Your task to perform on an android device: Go to Yahoo.com Image 0: 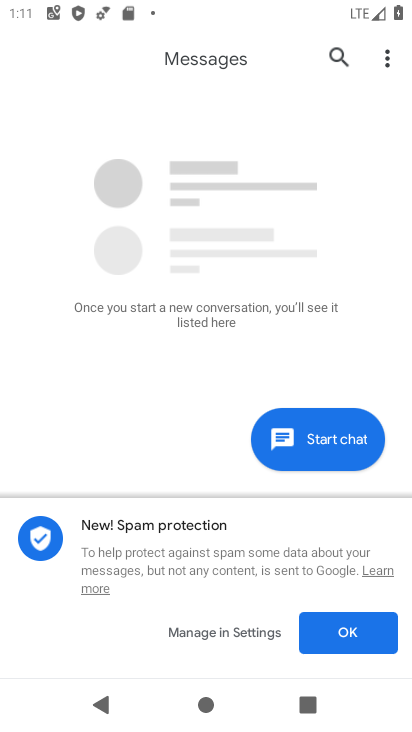
Step 0: press home button
Your task to perform on an android device: Go to Yahoo.com Image 1: 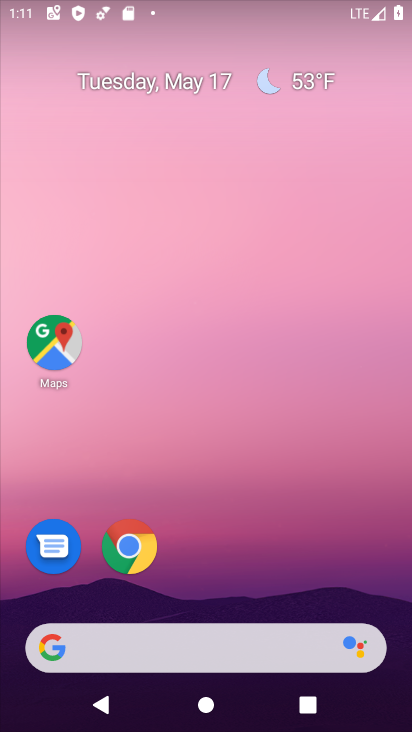
Step 1: drag from (198, 591) to (209, 546)
Your task to perform on an android device: Go to Yahoo.com Image 2: 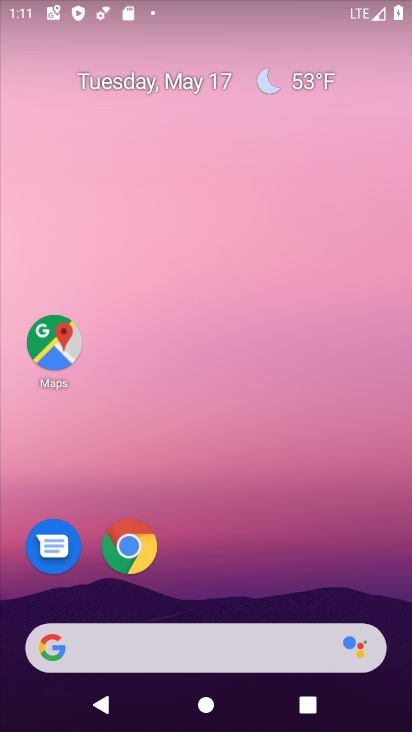
Step 2: click (120, 554)
Your task to perform on an android device: Go to Yahoo.com Image 3: 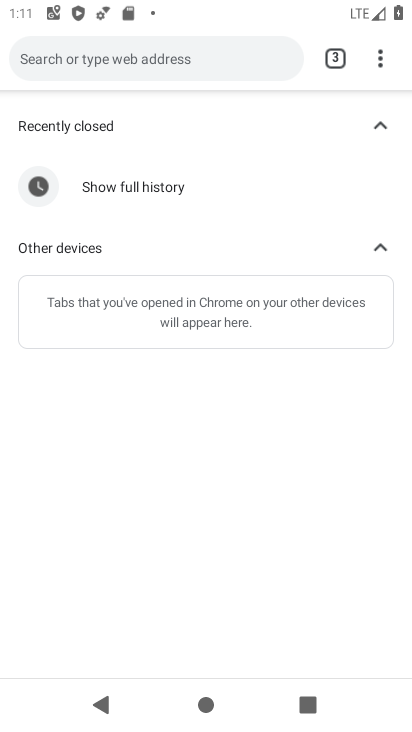
Step 3: click (333, 59)
Your task to perform on an android device: Go to Yahoo.com Image 4: 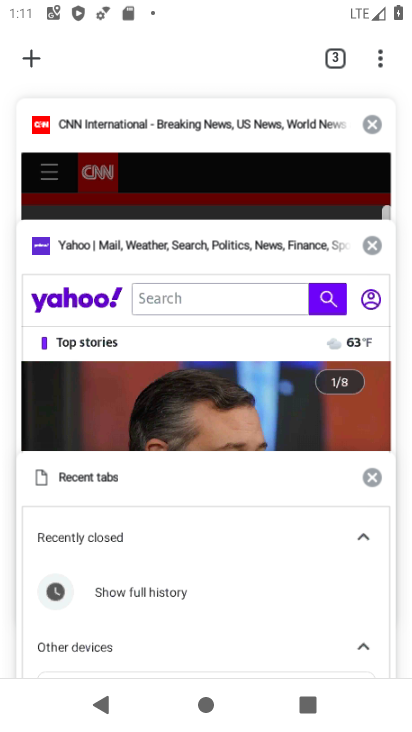
Step 4: click (179, 303)
Your task to perform on an android device: Go to Yahoo.com Image 5: 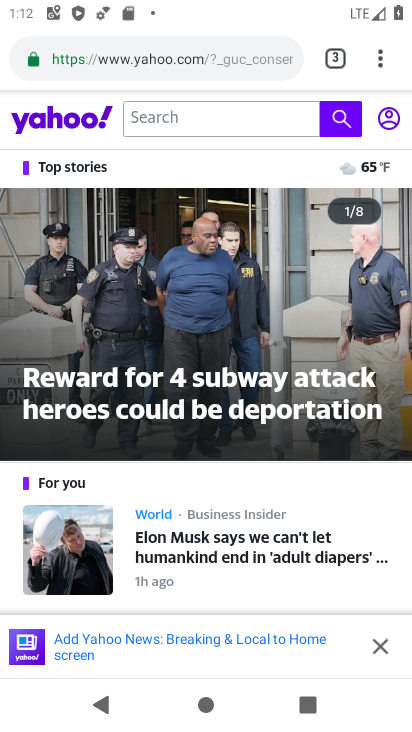
Step 5: task complete